Your task to perform on an android device: see sites visited before in the chrome app Image 0: 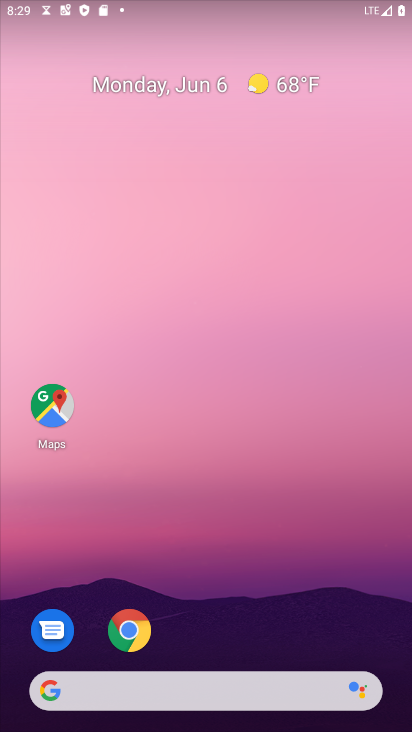
Step 0: click (128, 629)
Your task to perform on an android device: see sites visited before in the chrome app Image 1: 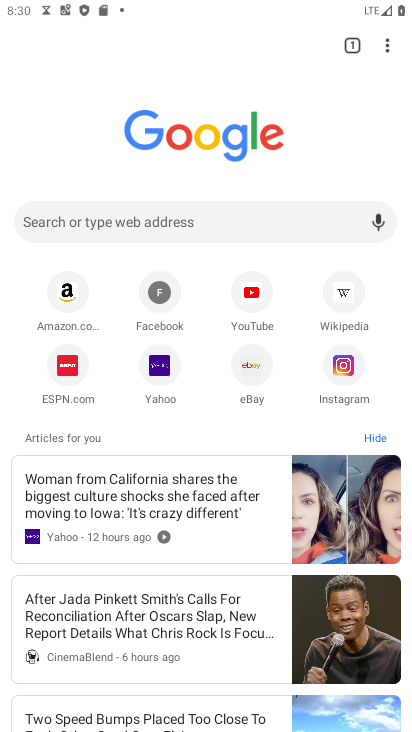
Step 1: click (387, 46)
Your task to perform on an android device: see sites visited before in the chrome app Image 2: 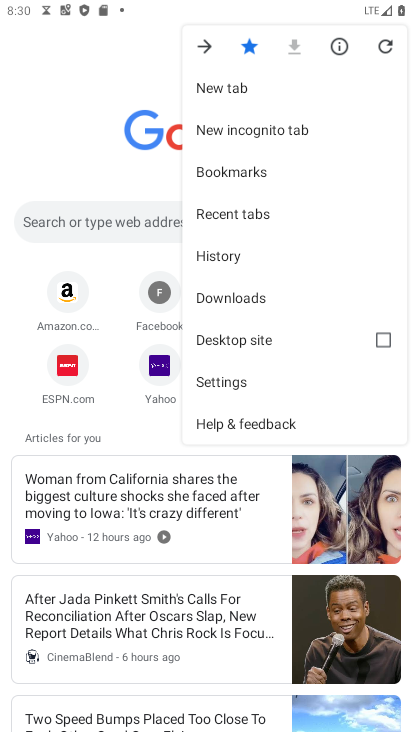
Step 2: click (241, 260)
Your task to perform on an android device: see sites visited before in the chrome app Image 3: 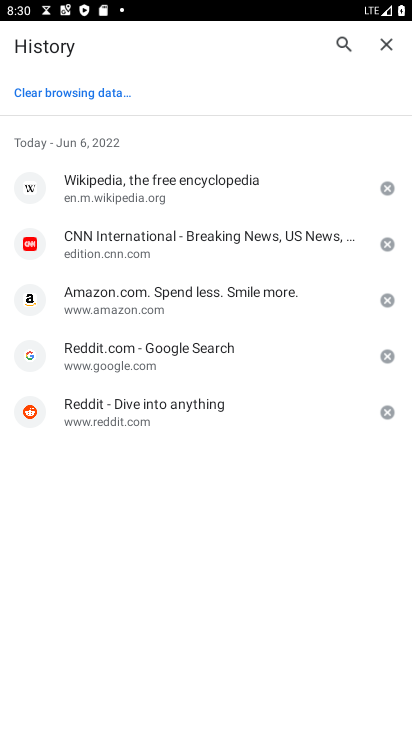
Step 3: task complete